Your task to perform on an android device: turn on wifi Image 0: 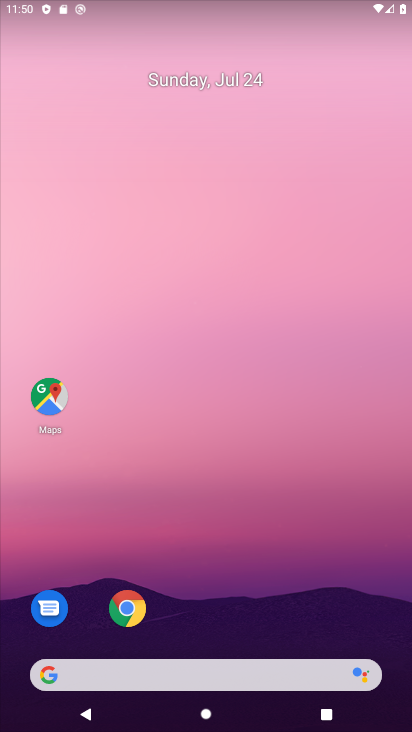
Step 0: drag from (121, 27) to (68, 509)
Your task to perform on an android device: turn on wifi Image 1: 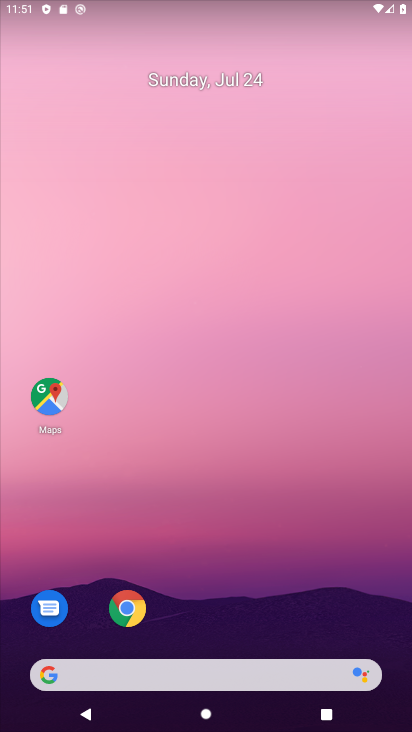
Step 1: task complete